Your task to perform on an android device: turn on showing notifications on the lock screen Image 0: 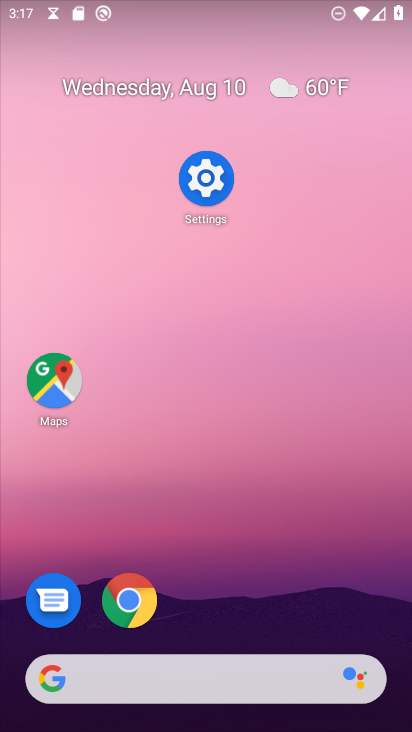
Step 0: press home button
Your task to perform on an android device: turn on showing notifications on the lock screen Image 1: 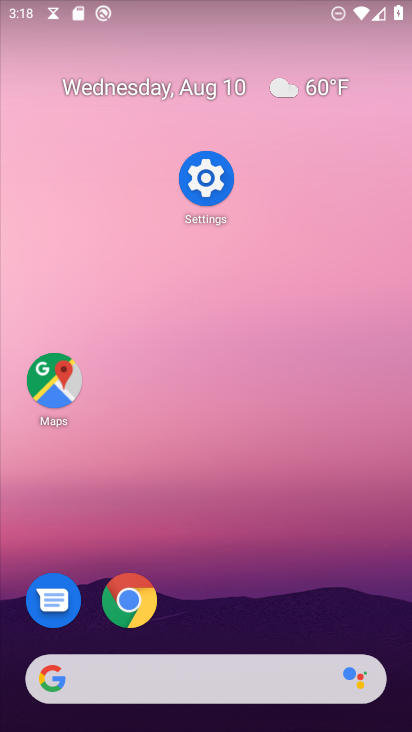
Step 1: click (195, 177)
Your task to perform on an android device: turn on showing notifications on the lock screen Image 2: 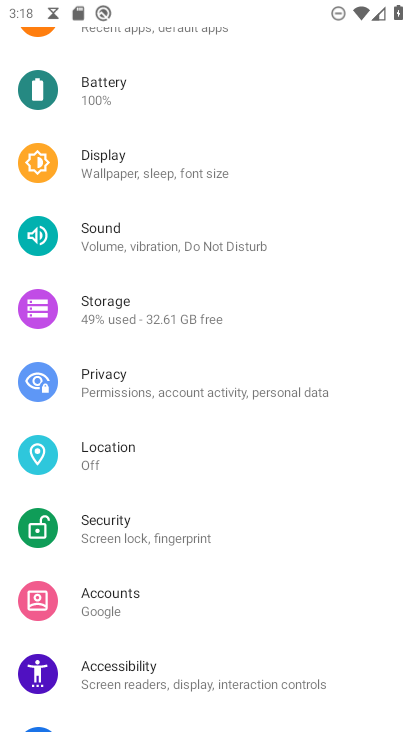
Step 2: drag from (258, 123) to (260, 622)
Your task to perform on an android device: turn on showing notifications on the lock screen Image 3: 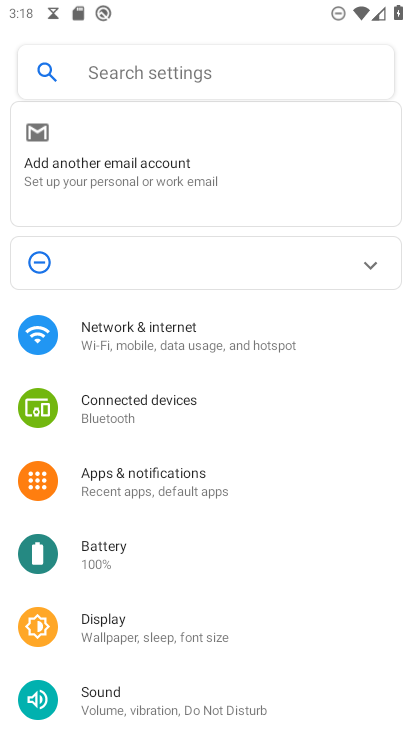
Step 3: click (140, 483)
Your task to perform on an android device: turn on showing notifications on the lock screen Image 4: 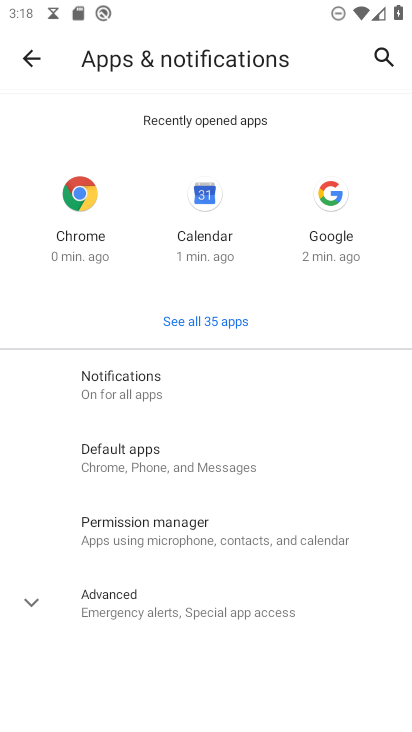
Step 4: click (109, 382)
Your task to perform on an android device: turn on showing notifications on the lock screen Image 5: 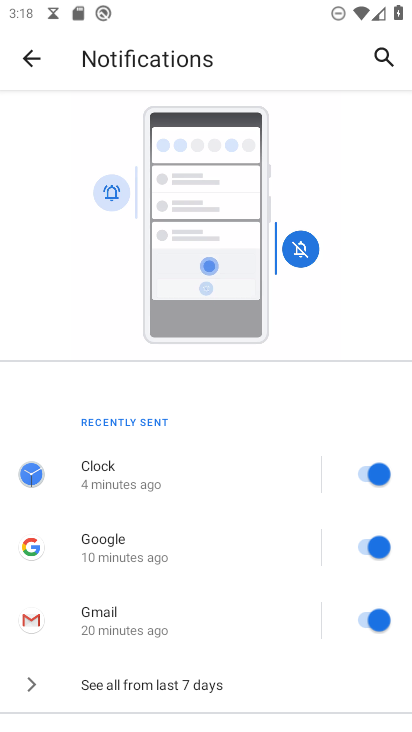
Step 5: drag from (220, 642) to (310, 421)
Your task to perform on an android device: turn on showing notifications on the lock screen Image 6: 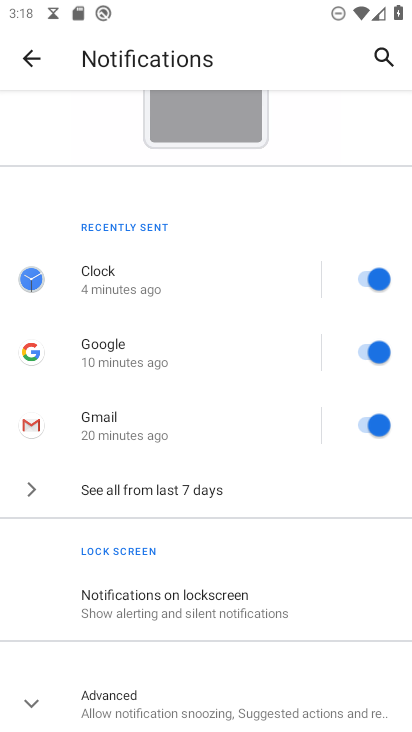
Step 6: click (164, 600)
Your task to perform on an android device: turn on showing notifications on the lock screen Image 7: 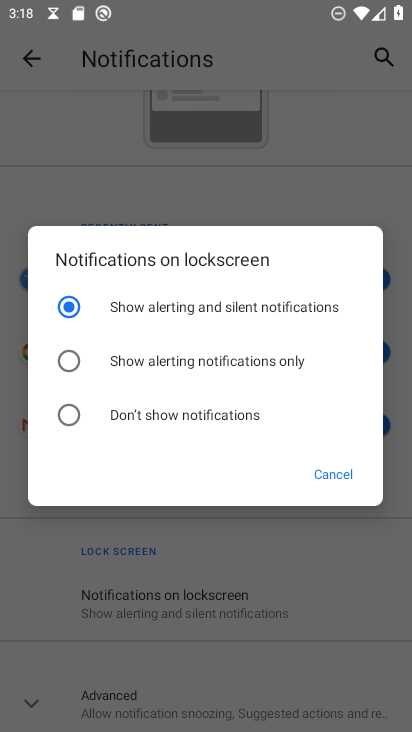
Step 7: task complete